Your task to perform on an android device: check storage Image 0: 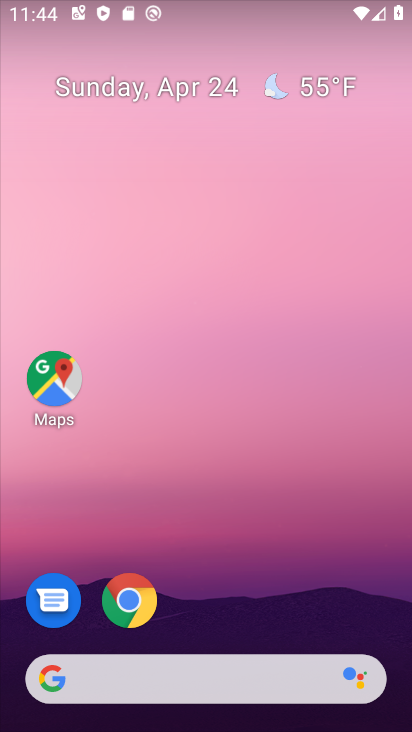
Step 0: drag from (266, 564) to (312, 148)
Your task to perform on an android device: check storage Image 1: 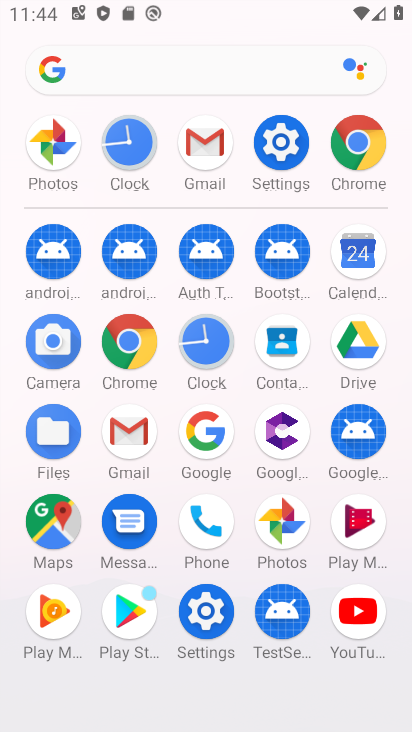
Step 1: click (282, 162)
Your task to perform on an android device: check storage Image 2: 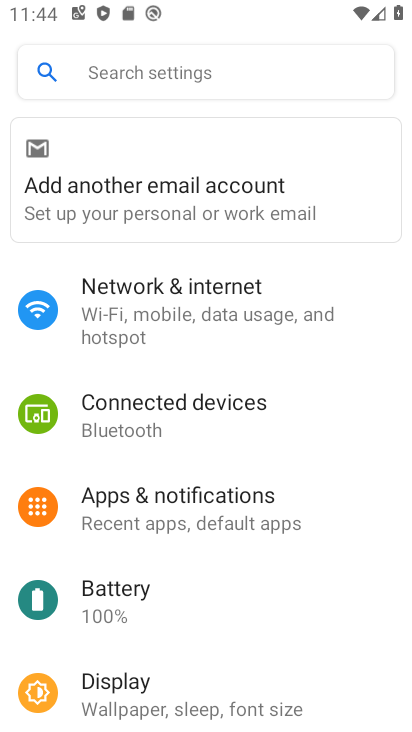
Step 2: drag from (127, 581) to (155, 264)
Your task to perform on an android device: check storage Image 3: 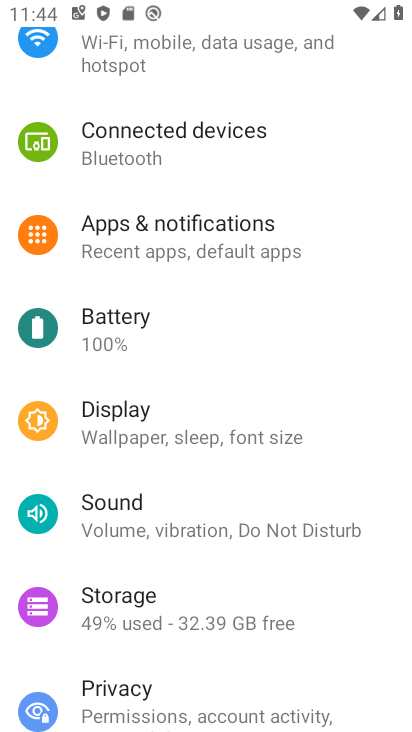
Step 3: click (161, 613)
Your task to perform on an android device: check storage Image 4: 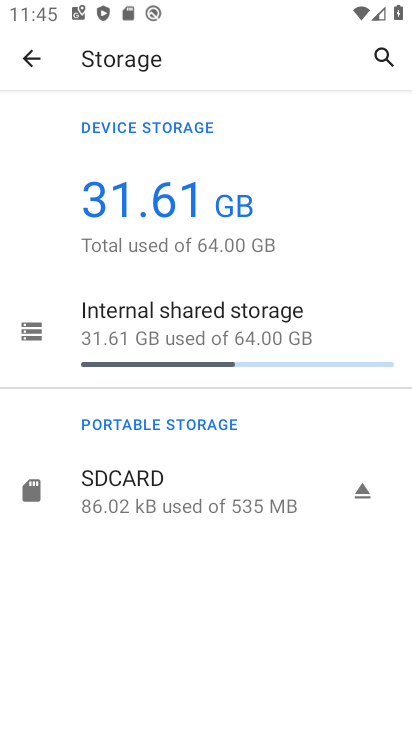
Step 4: task complete